Your task to perform on an android device: Open the calendar and show me this week's events? Image 0: 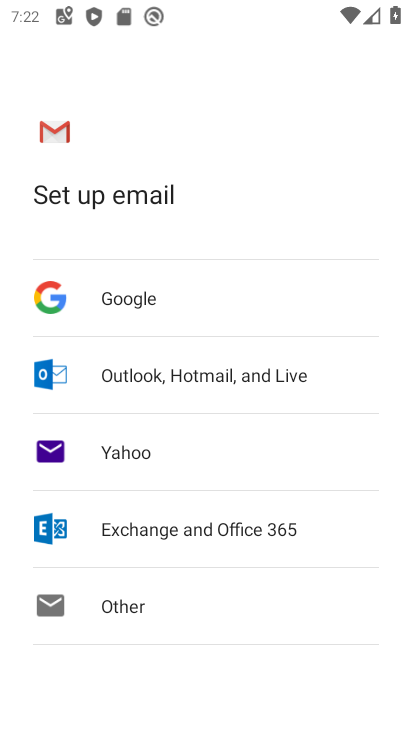
Step 0: press home button
Your task to perform on an android device: Open the calendar and show me this week's events? Image 1: 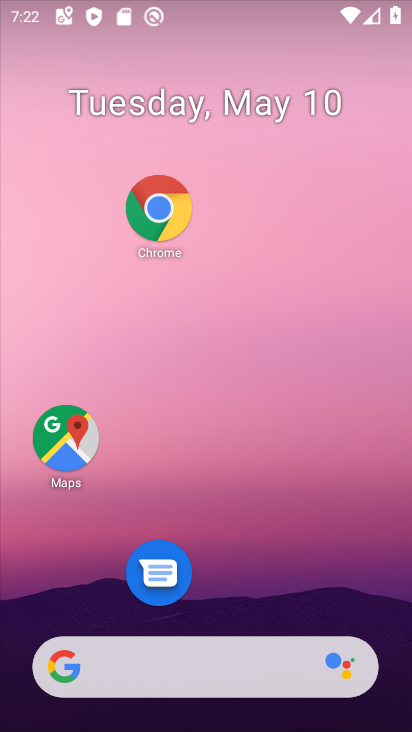
Step 1: drag from (238, 689) to (287, 226)
Your task to perform on an android device: Open the calendar and show me this week's events? Image 2: 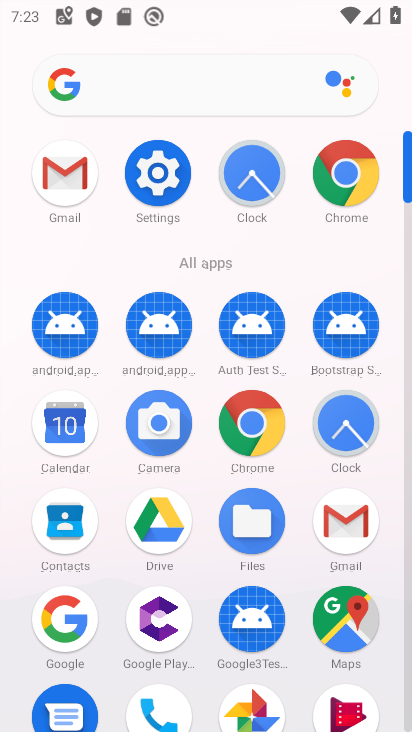
Step 2: click (57, 418)
Your task to perform on an android device: Open the calendar and show me this week's events? Image 3: 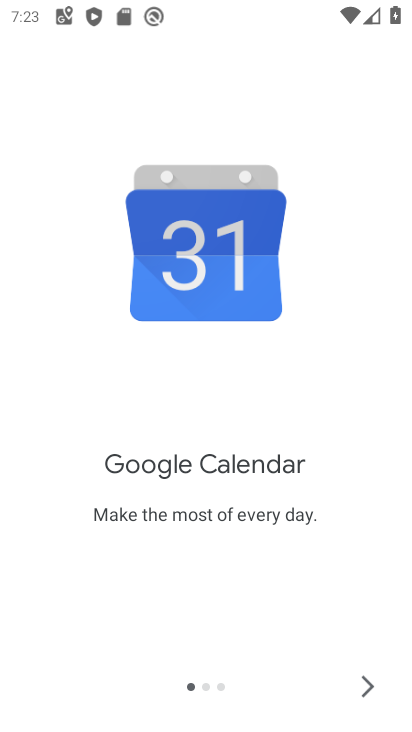
Step 3: click (361, 685)
Your task to perform on an android device: Open the calendar and show me this week's events? Image 4: 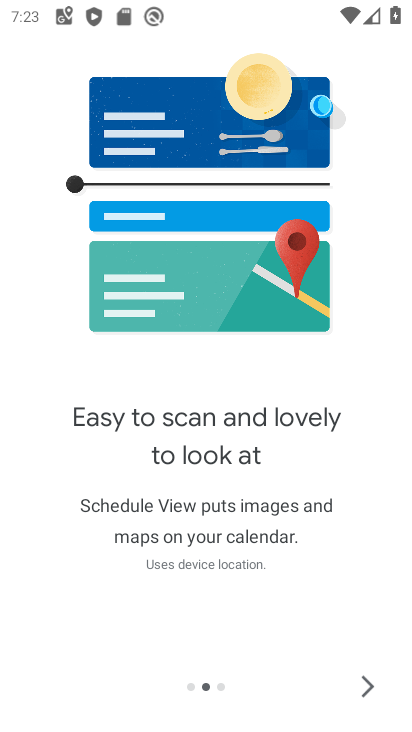
Step 4: click (350, 685)
Your task to perform on an android device: Open the calendar and show me this week's events? Image 5: 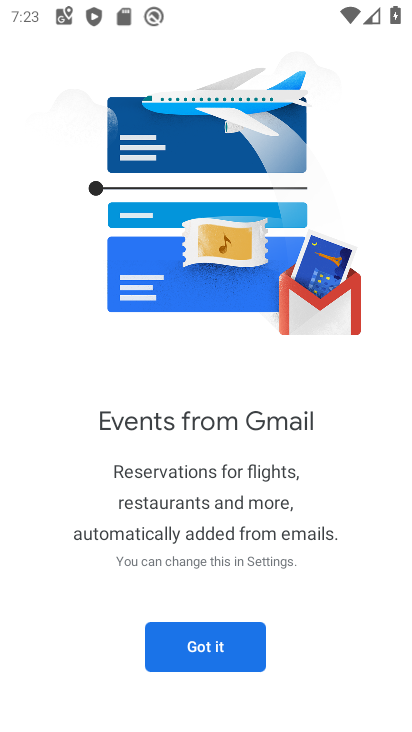
Step 5: click (350, 685)
Your task to perform on an android device: Open the calendar and show me this week's events? Image 6: 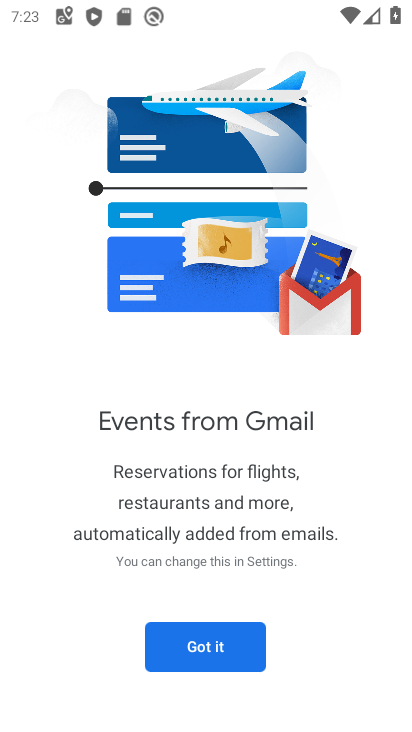
Step 6: click (204, 644)
Your task to perform on an android device: Open the calendar and show me this week's events? Image 7: 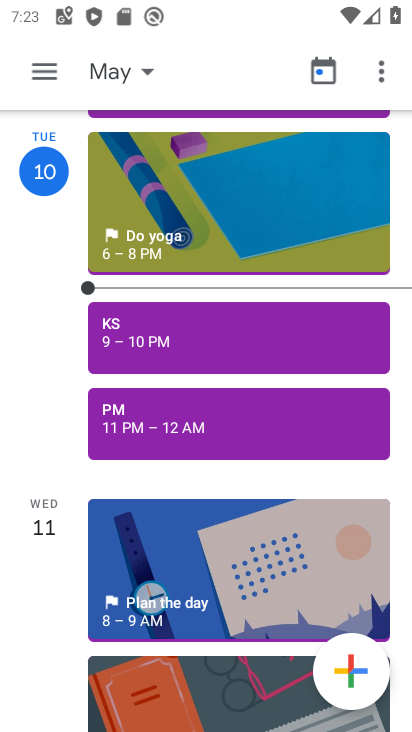
Step 7: task complete